Your task to perform on an android device: What's the news in Taiwan? Image 0: 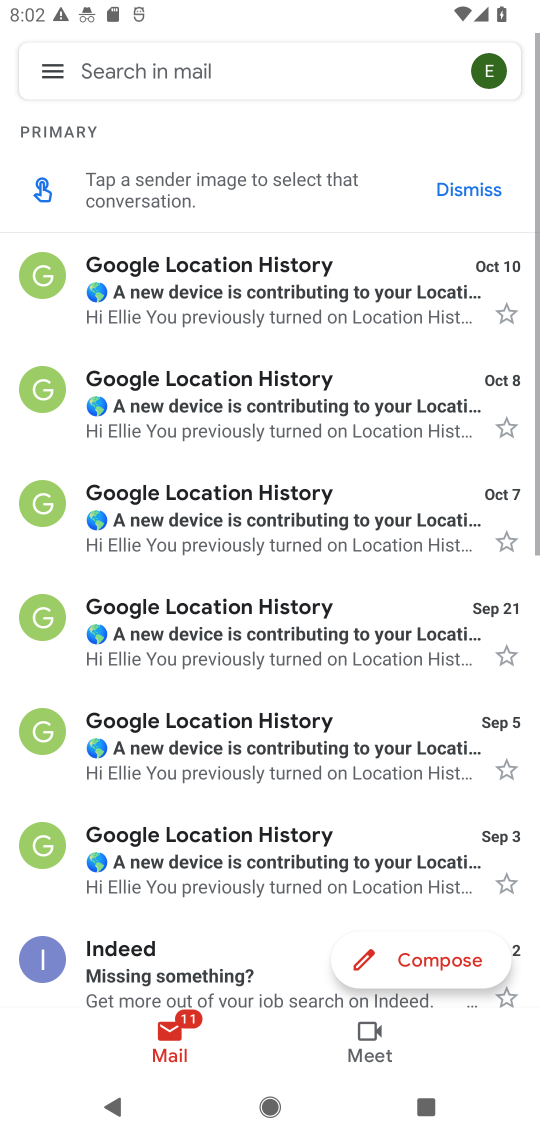
Step 0: press home button
Your task to perform on an android device: What's the news in Taiwan? Image 1: 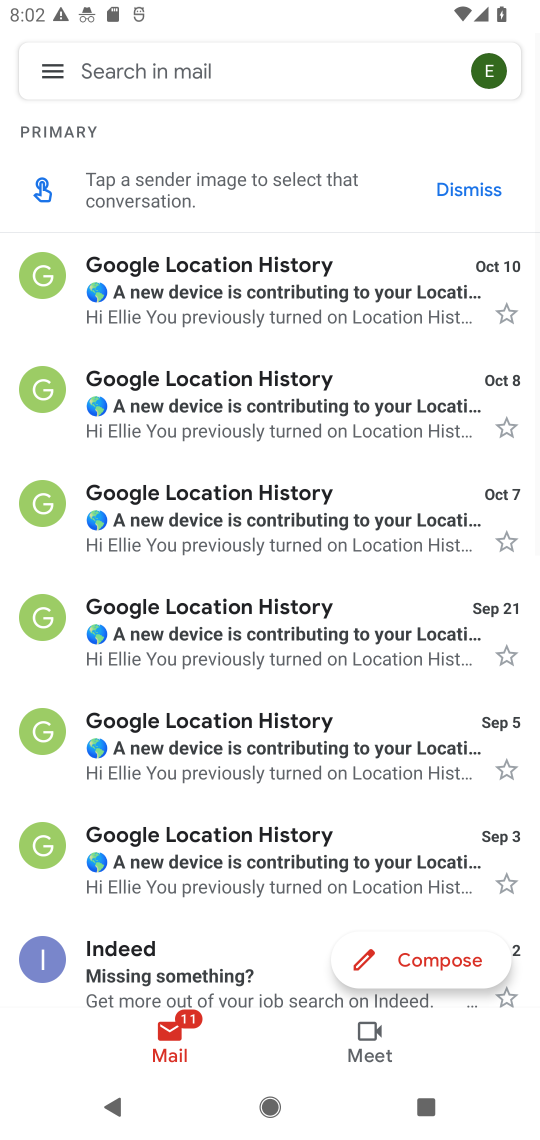
Step 1: press home button
Your task to perform on an android device: What's the news in Taiwan? Image 2: 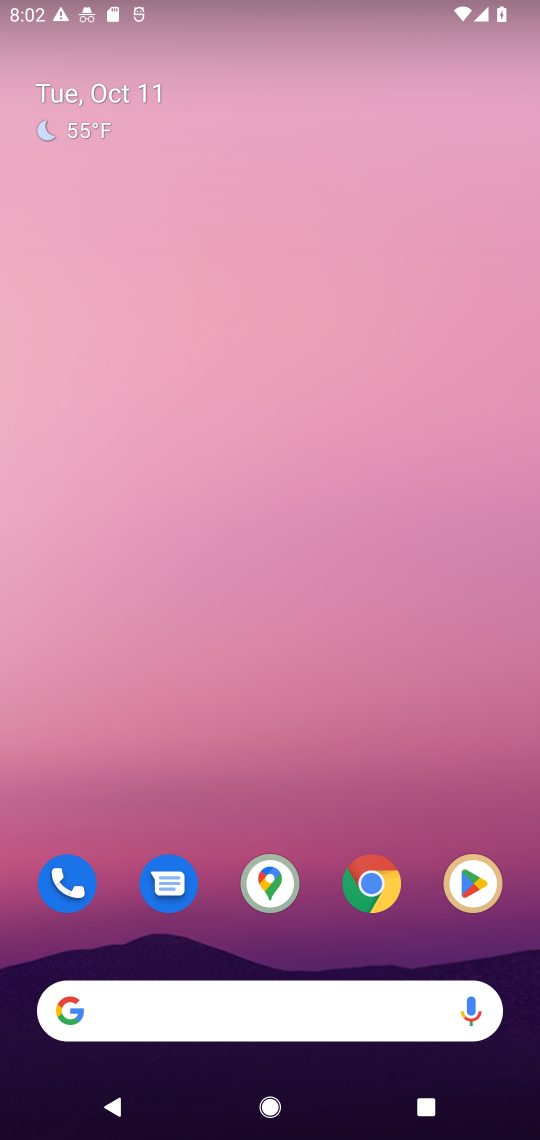
Step 2: drag from (320, 830) to (214, 30)
Your task to perform on an android device: What's the news in Taiwan? Image 3: 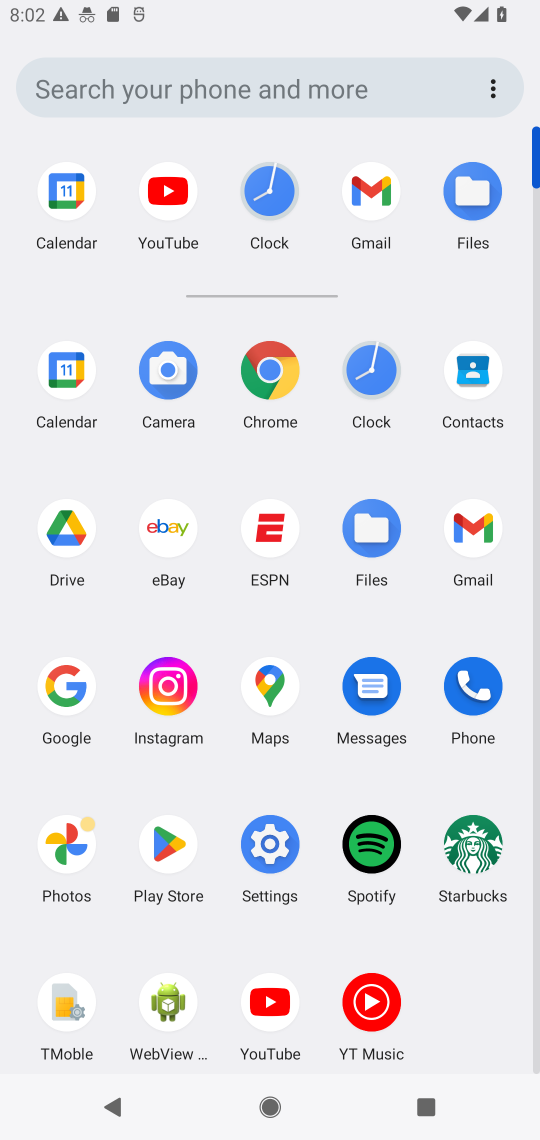
Step 3: click (269, 376)
Your task to perform on an android device: What's the news in Taiwan? Image 4: 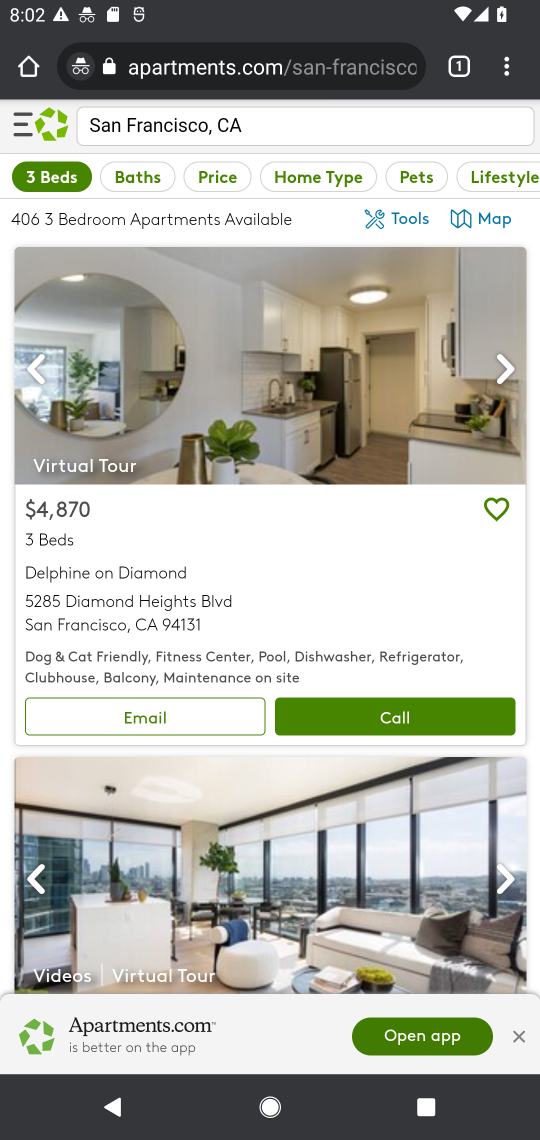
Step 4: click (291, 84)
Your task to perform on an android device: What's the news in Taiwan? Image 5: 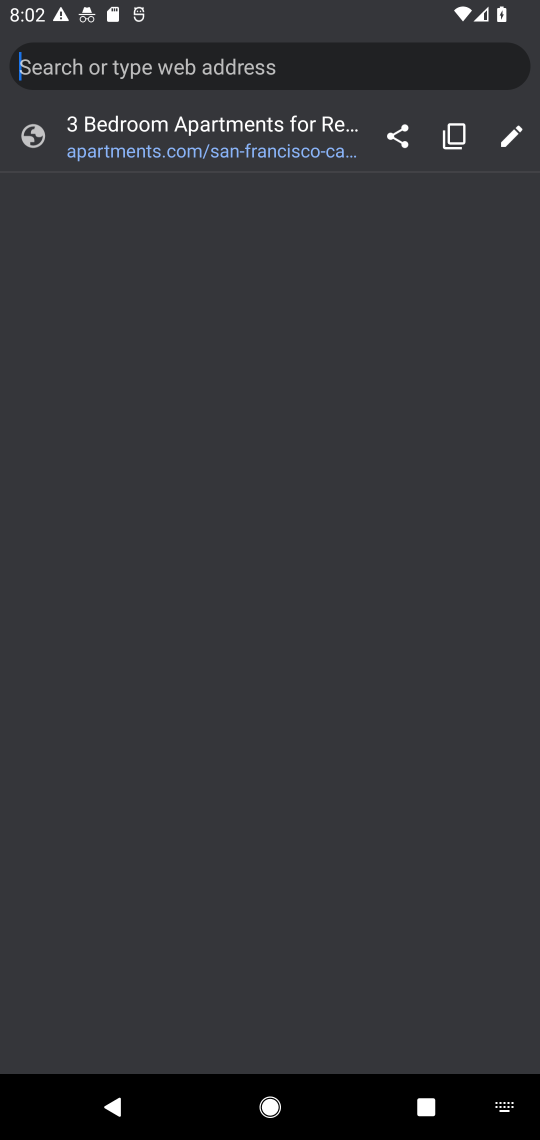
Step 5: type "What's the news in Taiwan?"
Your task to perform on an android device: What's the news in Taiwan? Image 6: 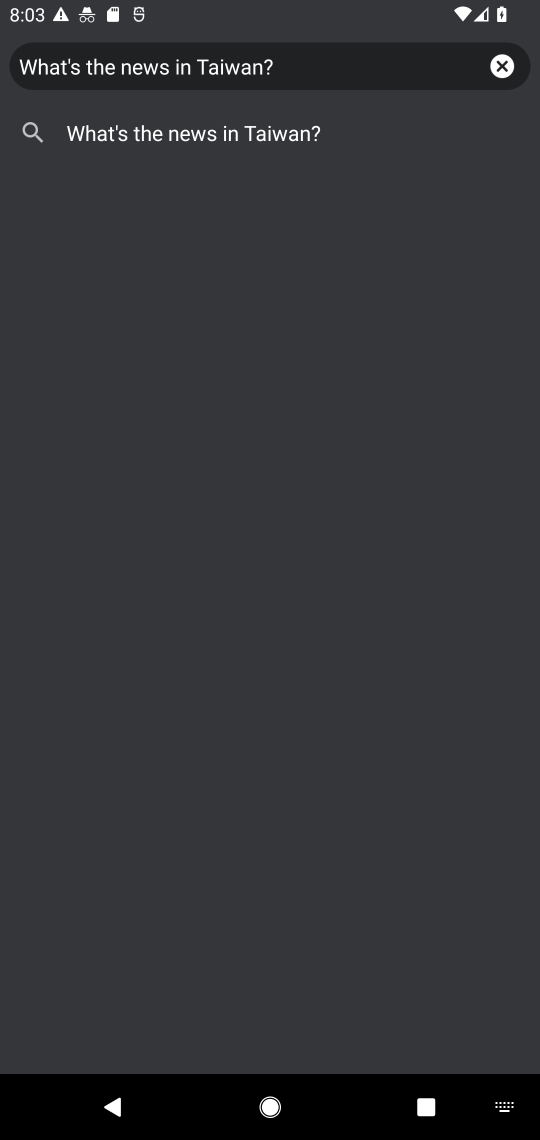
Step 6: press enter
Your task to perform on an android device: What's the news in Taiwan? Image 7: 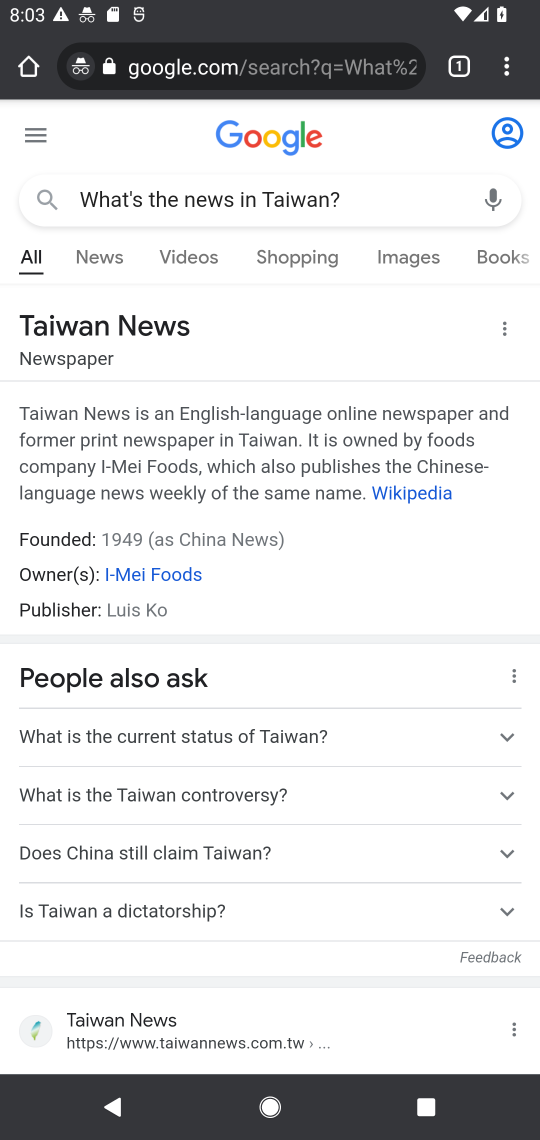
Step 7: drag from (350, 846) to (419, 239)
Your task to perform on an android device: What's the news in Taiwan? Image 8: 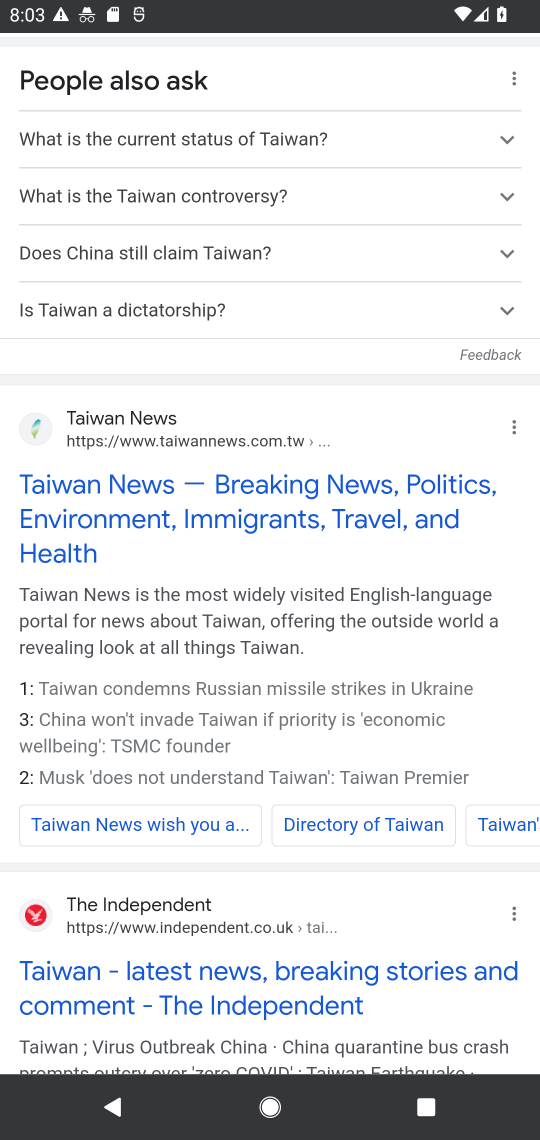
Step 8: click (127, 496)
Your task to perform on an android device: What's the news in Taiwan? Image 9: 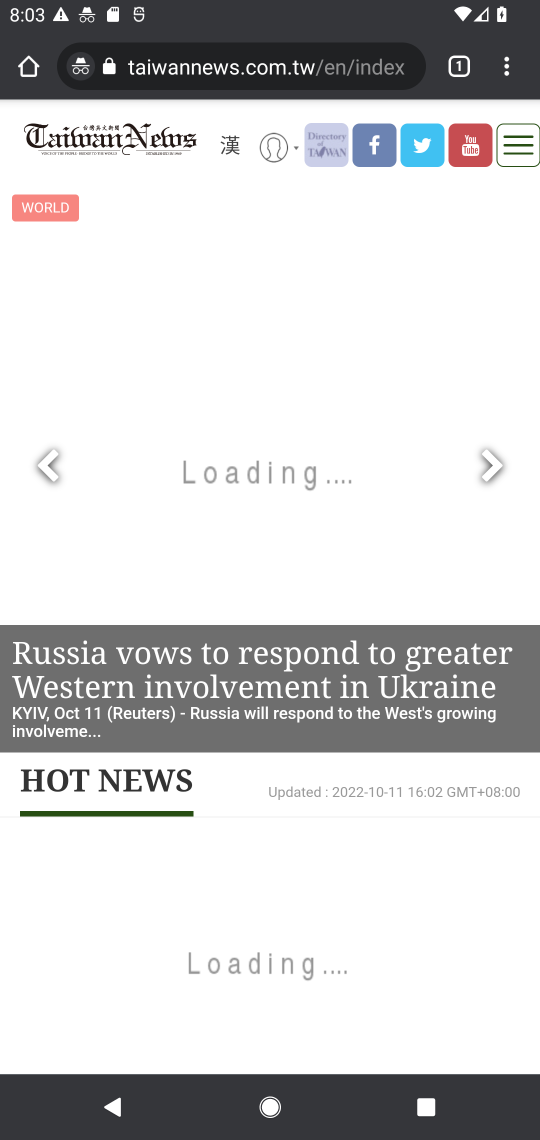
Step 9: task complete